Your task to perform on an android device: turn off notifications settings in the gmail app Image 0: 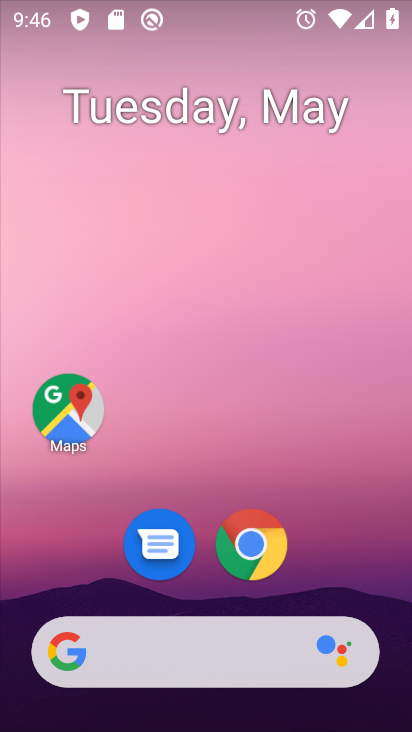
Step 0: drag from (383, 544) to (344, 166)
Your task to perform on an android device: turn off notifications settings in the gmail app Image 1: 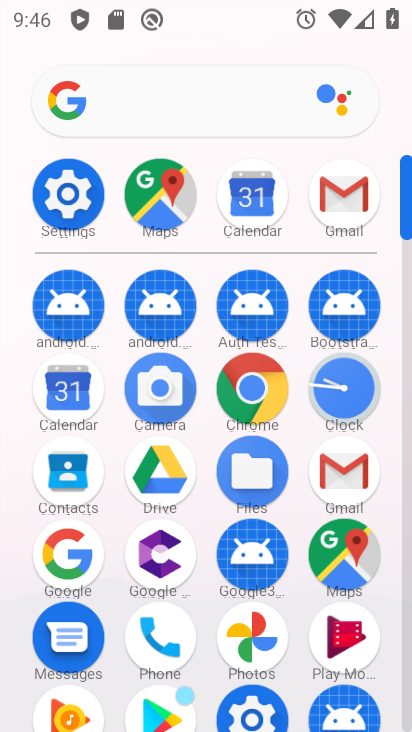
Step 1: click (327, 469)
Your task to perform on an android device: turn off notifications settings in the gmail app Image 2: 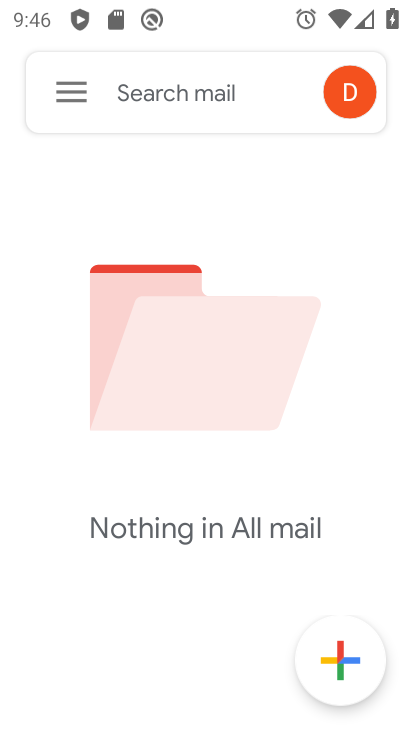
Step 2: click (58, 103)
Your task to perform on an android device: turn off notifications settings in the gmail app Image 3: 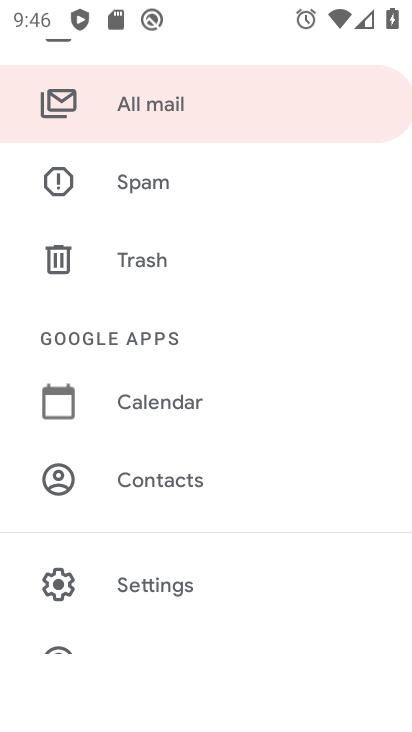
Step 3: click (152, 585)
Your task to perform on an android device: turn off notifications settings in the gmail app Image 4: 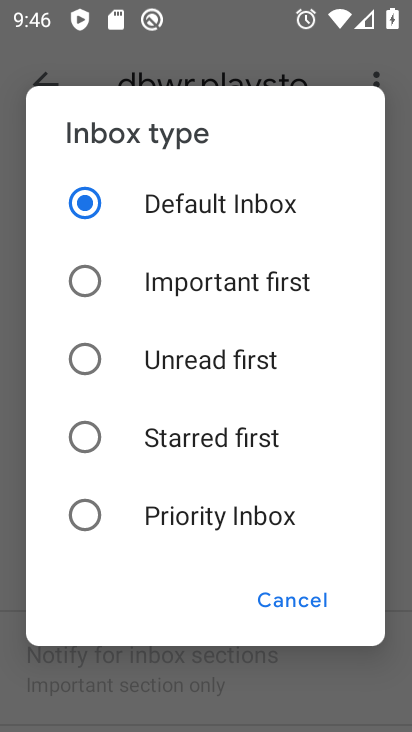
Step 4: click (287, 617)
Your task to perform on an android device: turn off notifications settings in the gmail app Image 5: 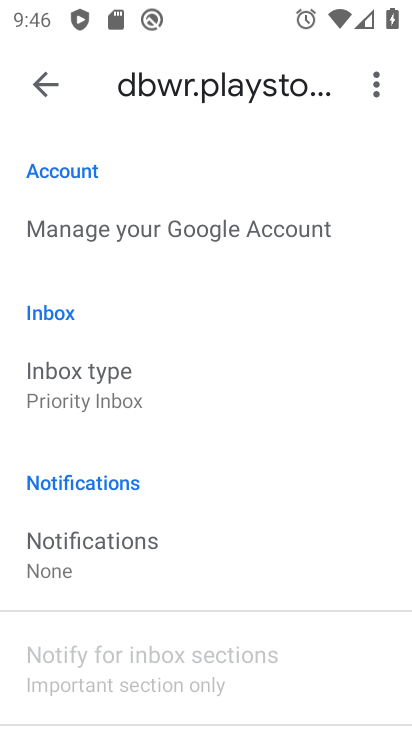
Step 5: click (102, 547)
Your task to perform on an android device: turn off notifications settings in the gmail app Image 6: 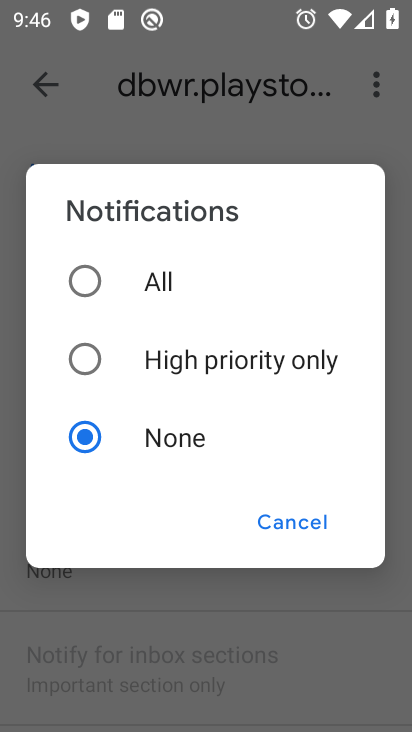
Step 6: task complete